Your task to perform on an android device: check data usage Image 0: 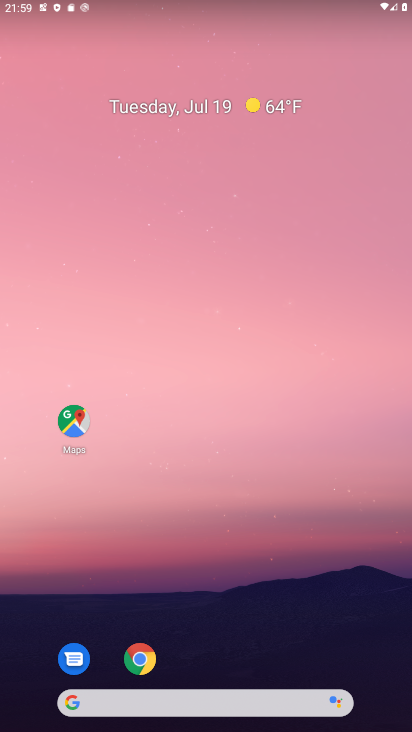
Step 0: drag from (220, 7) to (248, 583)
Your task to perform on an android device: check data usage Image 1: 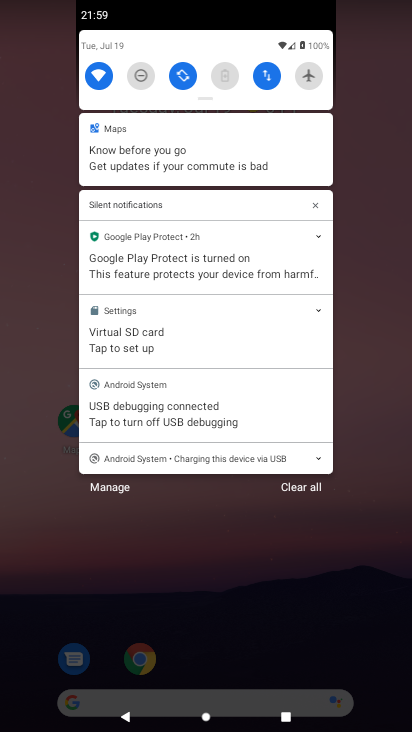
Step 1: click (269, 70)
Your task to perform on an android device: check data usage Image 2: 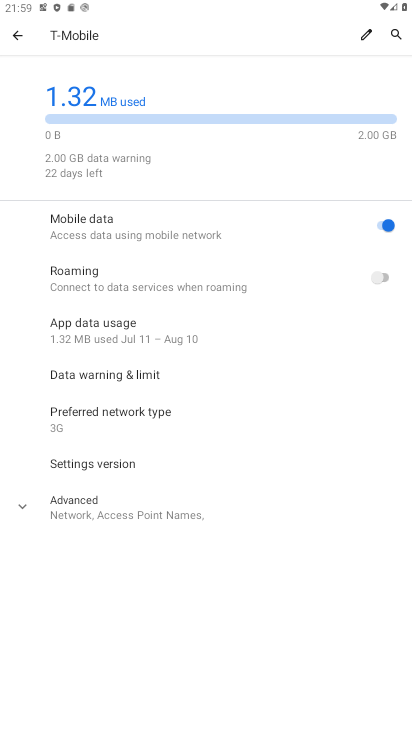
Step 2: task complete